Your task to perform on an android device: Open the web browser Image 0: 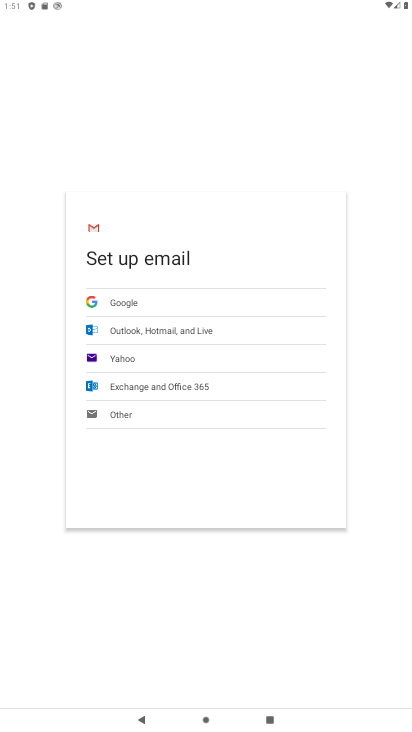
Step 0: press home button
Your task to perform on an android device: Open the web browser Image 1: 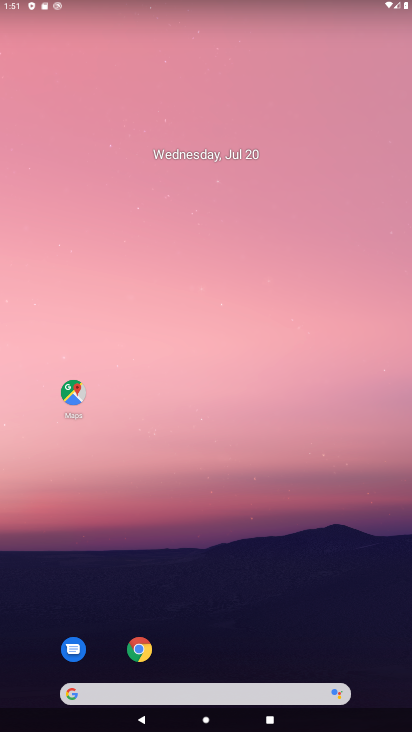
Step 1: click (134, 650)
Your task to perform on an android device: Open the web browser Image 2: 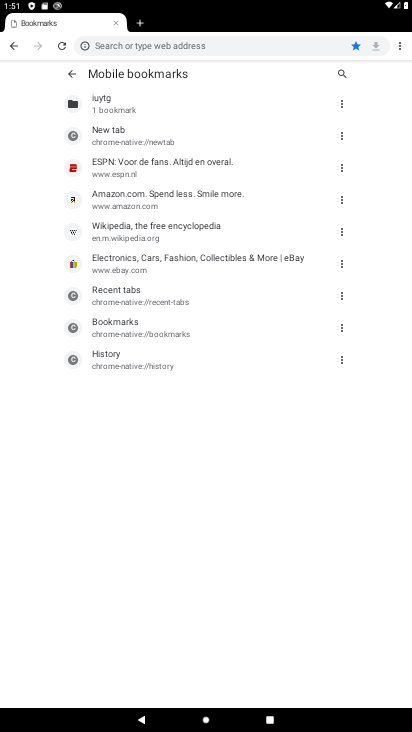
Step 2: task complete